Your task to perform on an android device: toggle translation in the chrome app Image 0: 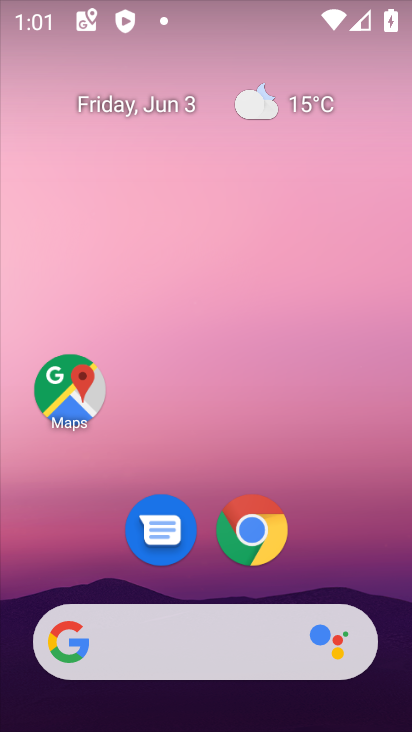
Step 0: click (253, 517)
Your task to perform on an android device: toggle translation in the chrome app Image 1: 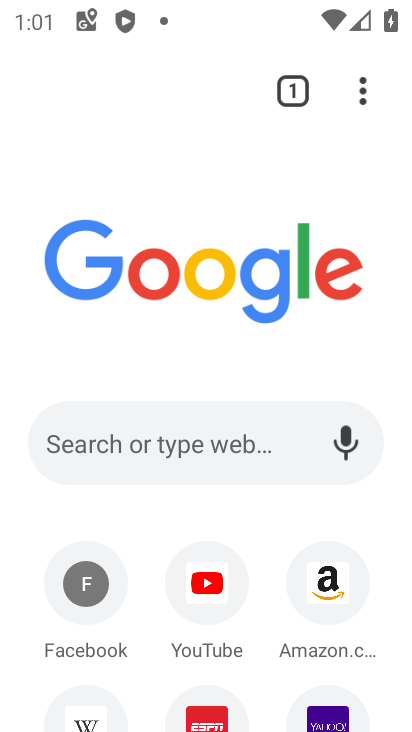
Step 1: drag from (364, 88) to (161, 556)
Your task to perform on an android device: toggle translation in the chrome app Image 2: 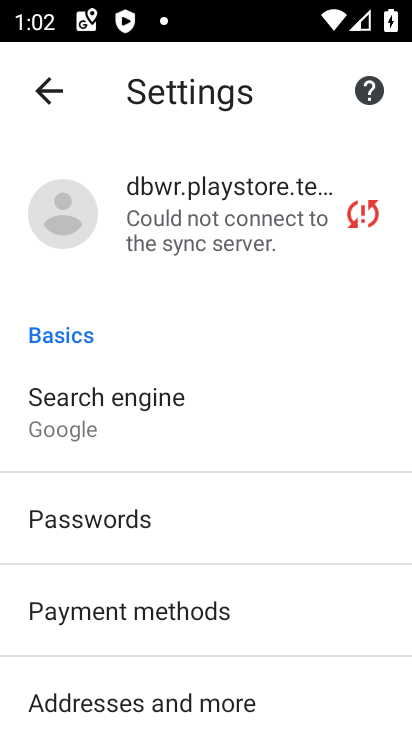
Step 2: drag from (300, 366) to (326, 21)
Your task to perform on an android device: toggle translation in the chrome app Image 3: 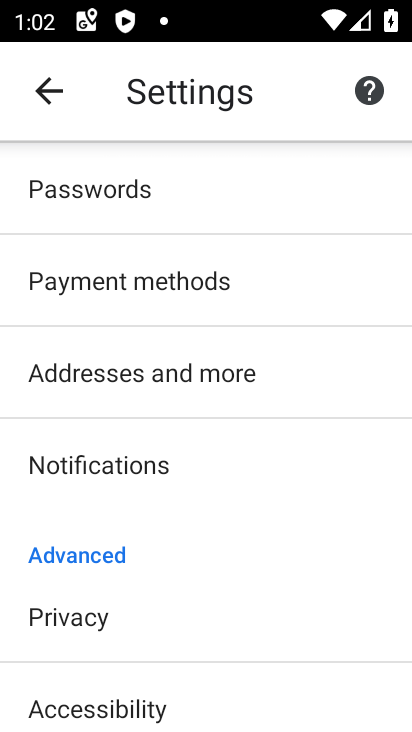
Step 3: drag from (302, 535) to (307, 183)
Your task to perform on an android device: toggle translation in the chrome app Image 4: 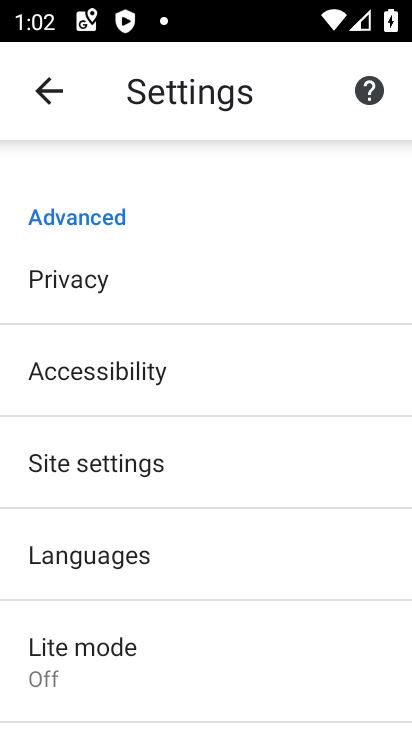
Step 4: click (92, 567)
Your task to perform on an android device: toggle translation in the chrome app Image 5: 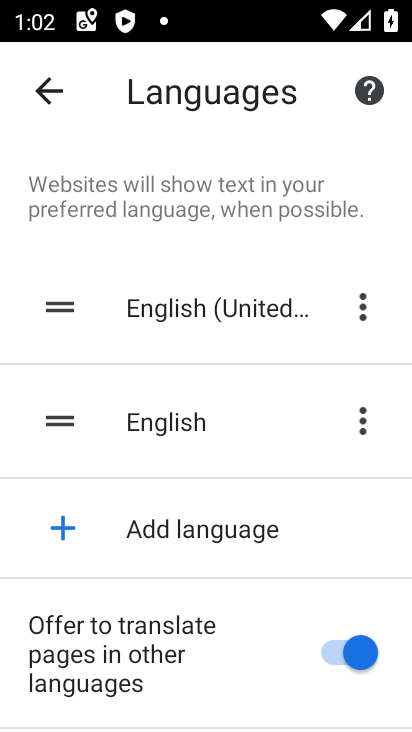
Step 5: click (352, 646)
Your task to perform on an android device: toggle translation in the chrome app Image 6: 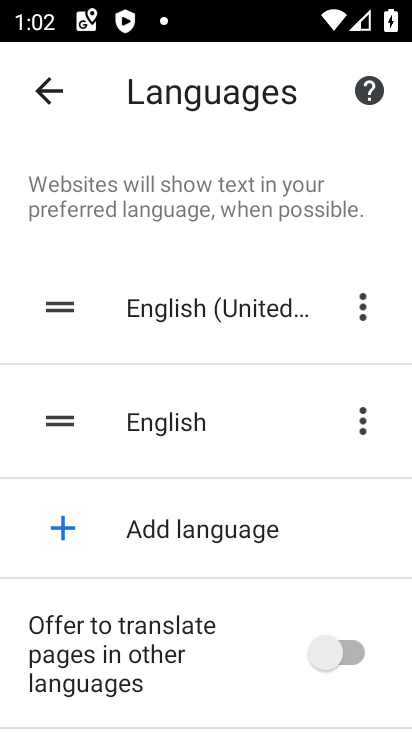
Step 6: task complete